Your task to perform on an android device: Check the weather Image 0: 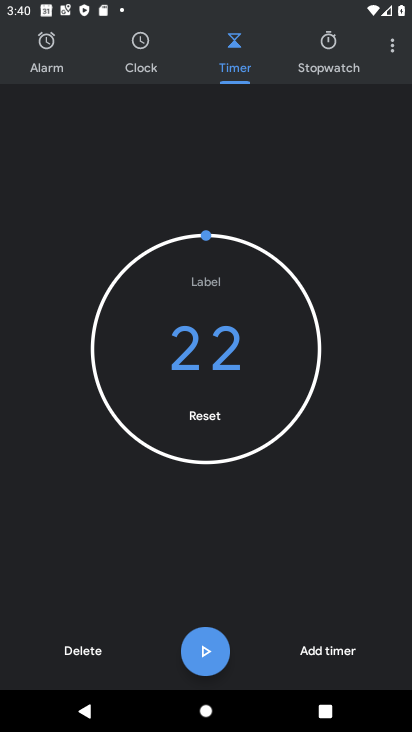
Step 0: press home button
Your task to perform on an android device: Check the weather Image 1: 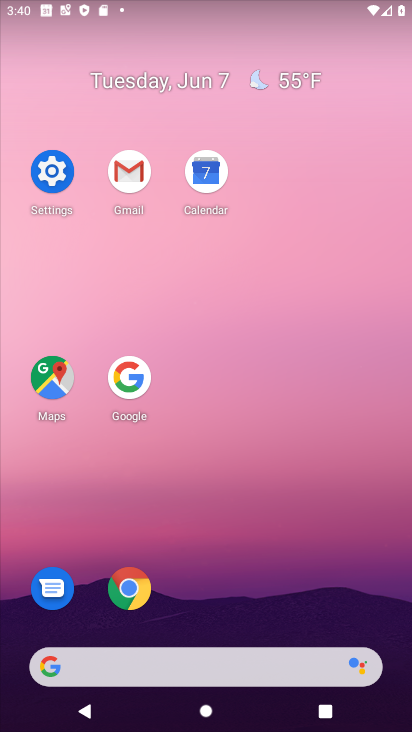
Step 1: click (125, 376)
Your task to perform on an android device: Check the weather Image 2: 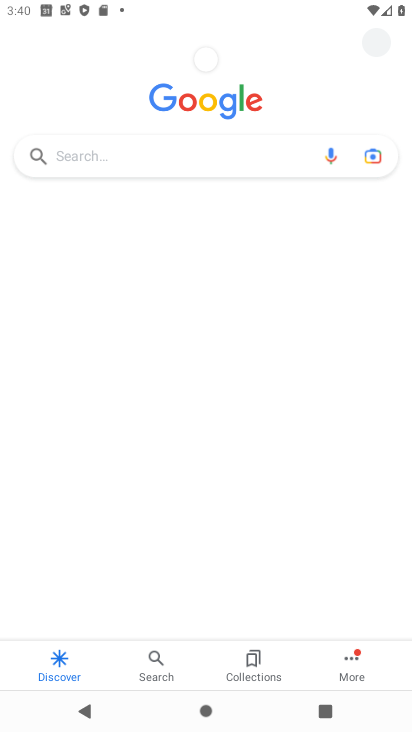
Step 2: click (130, 158)
Your task to perform on an android device: Check the weather Image 3: 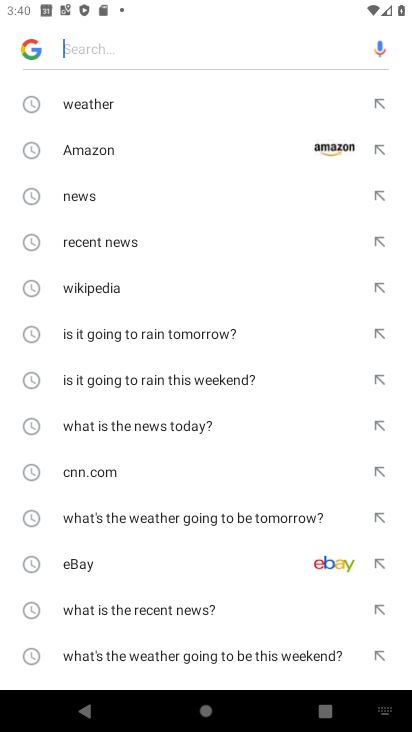
Step 3: click (121, 100)
Your task to perform on an android device: Check the weather Image 4: 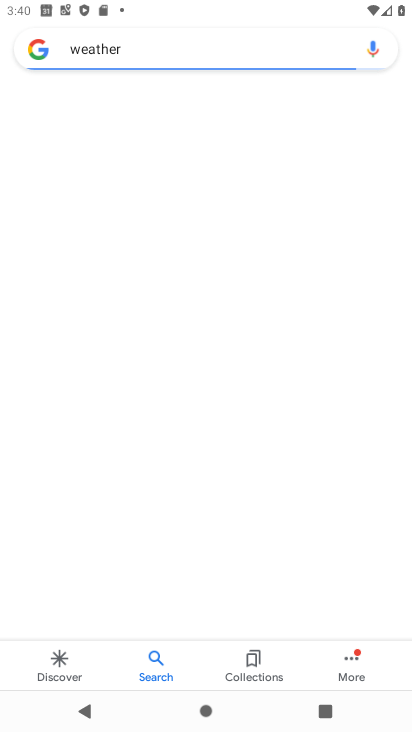
Step 4: task complete